Your task to perform on an android device: clear history in the chrome app Image 0: 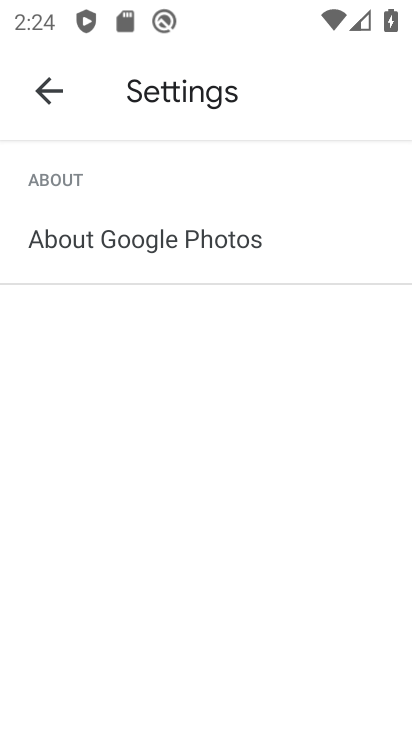
Step 0: press back button
Your task to perform on an android device: clear history in the chrome app Image 1: 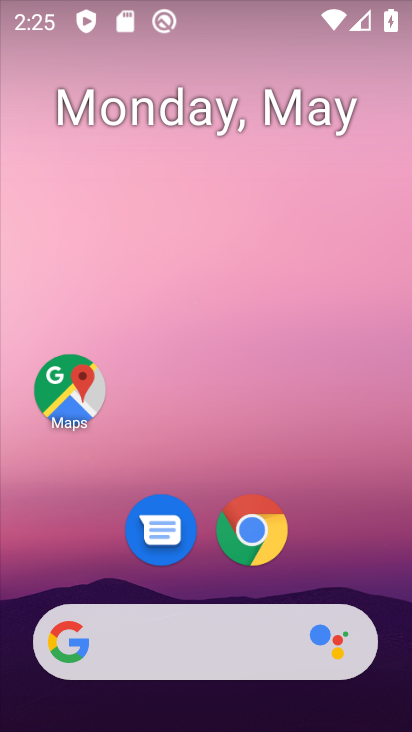
Step 1: click (273, 518)
Your task to perform on an android device: clear history in the chrome app Image 2: 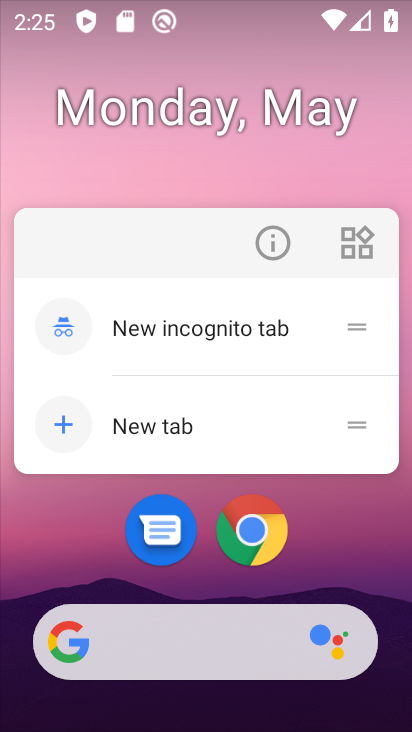
Step 2: click (254, 518)
Your task to perform on an android device: clear history in the chrome app Image 3: 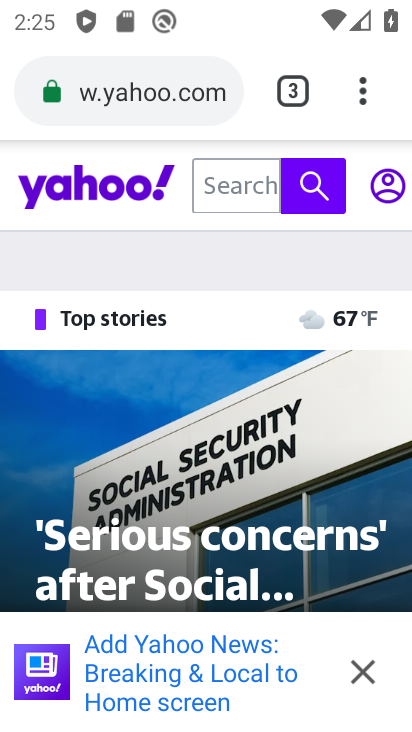
Step 3: drag from (369, 82) to (101, 512)
Your task to perform on an android device: clear history in the chrome app Image 4: 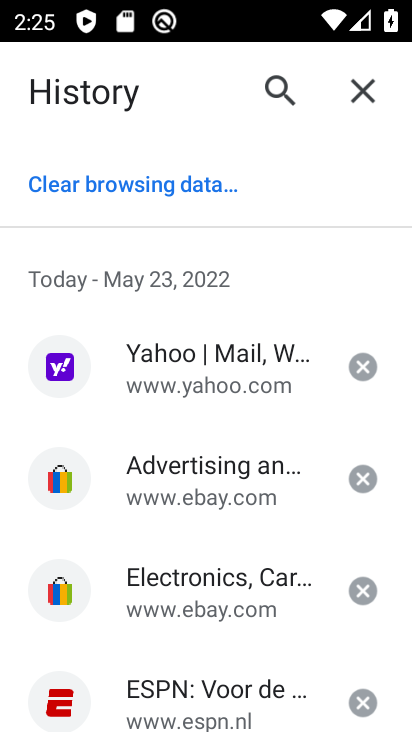
Step 4: click (114, 199)
Your task to perform on an android device: clear history in the chrome app Image 5: 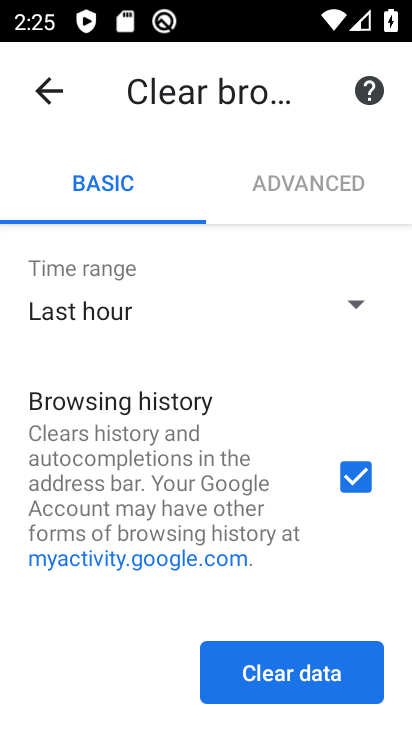
Step 5: click (263, 665)
Your task to perform on an android device: clear history in the chrome app Image 6: 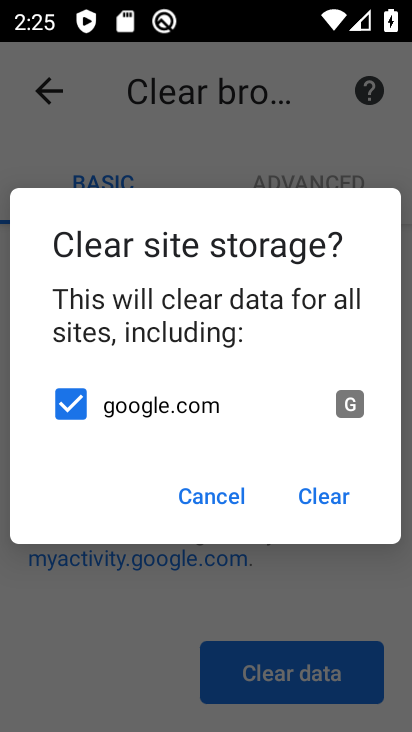
Step 6: click (317, 506)
Your task to perform on an android device: clear history in the chrome app Image 7: 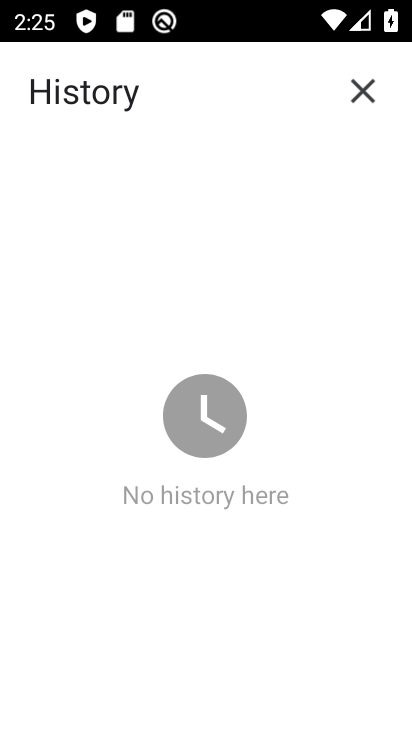
Step 7: task complete